Your task to perform on an android device: Open Google Maps and go to "Timeline" Image 0: 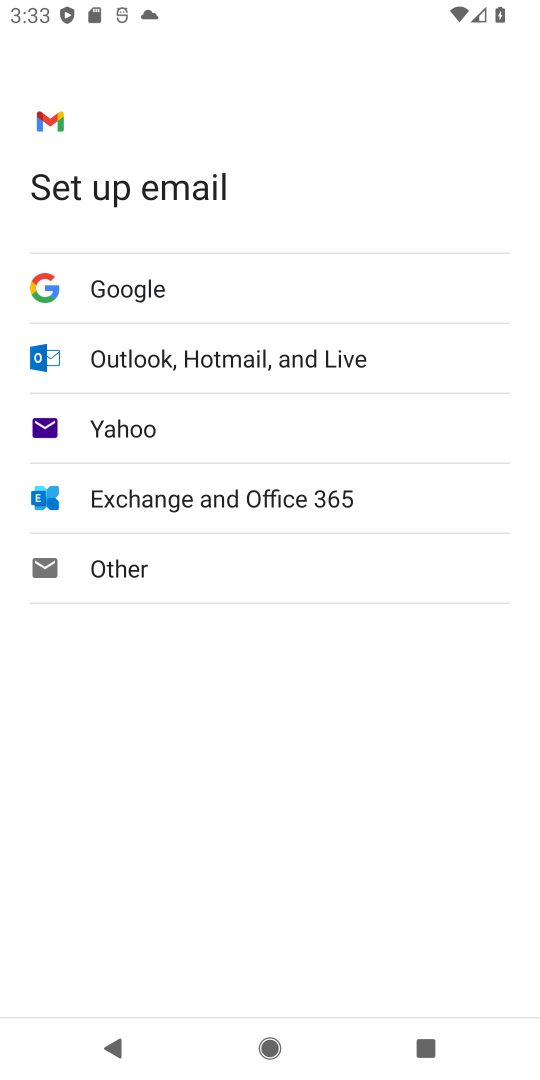
Step 0: press home button
Your task to perform on an android device: Open Google Maps and go to "Timeline" Image 1: 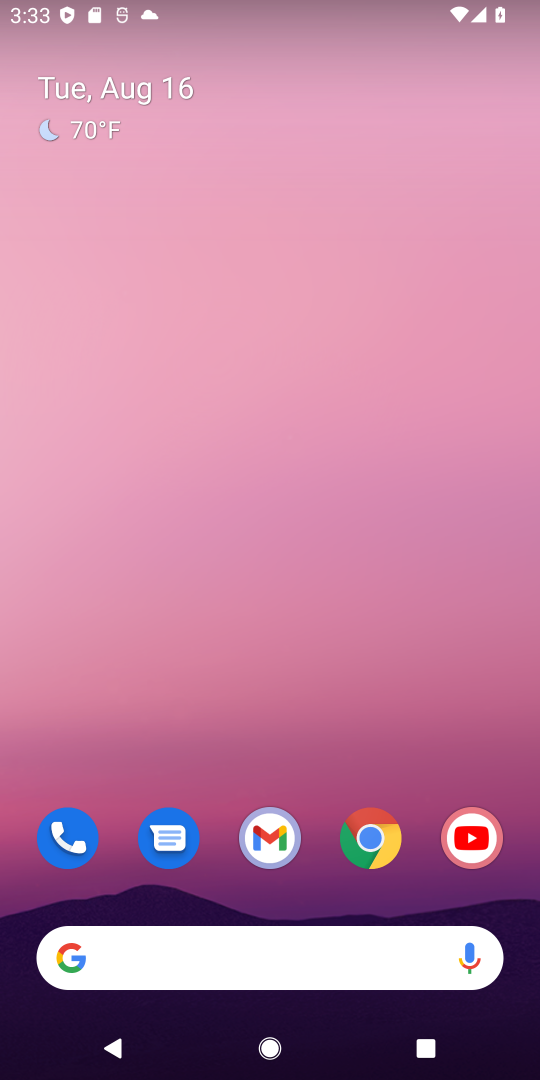
Step 1: drag from (251, 949) to (131, 7)
Your task to perform on an android device: Open Google Maps and go to "Timeline" Image 2: 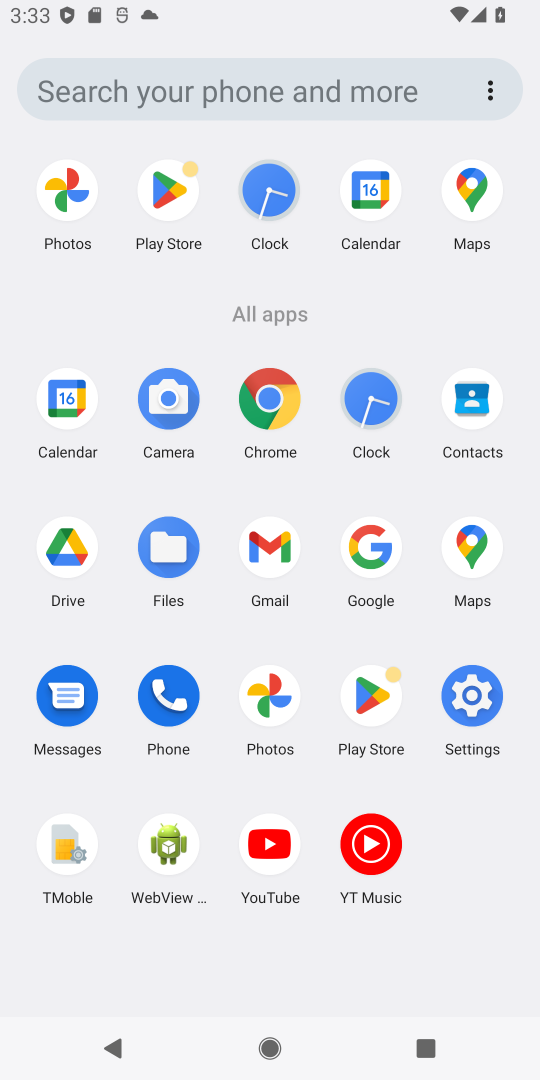
Step 2: click (469, 548)
Your task to perform on an android device: Open Google Maps and go to "Timeline" Image 3: 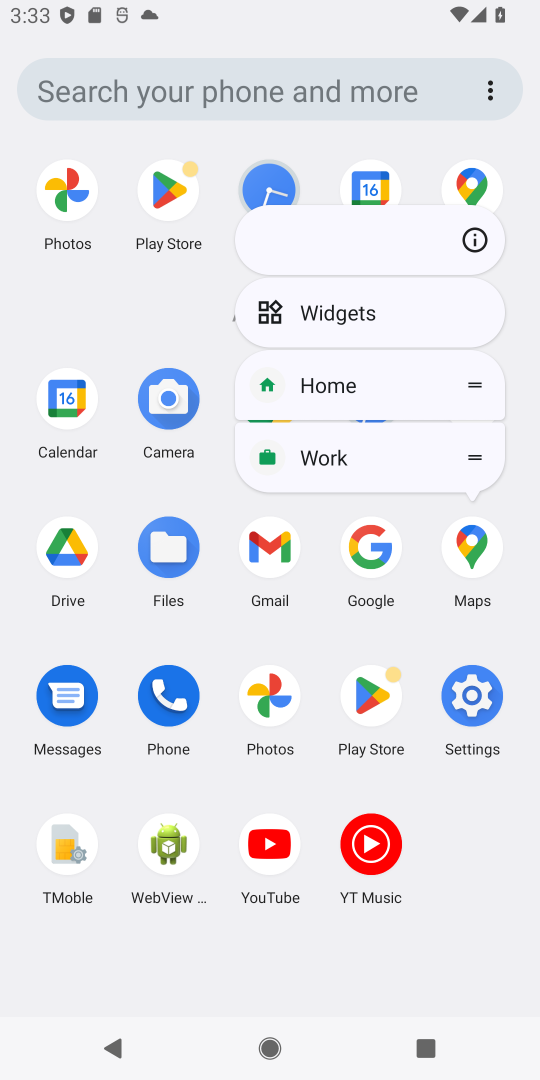
Step 3: click (469, 548)
Your task to perform on an android device: Open Google Maps and go to "Timeline" Image 4: 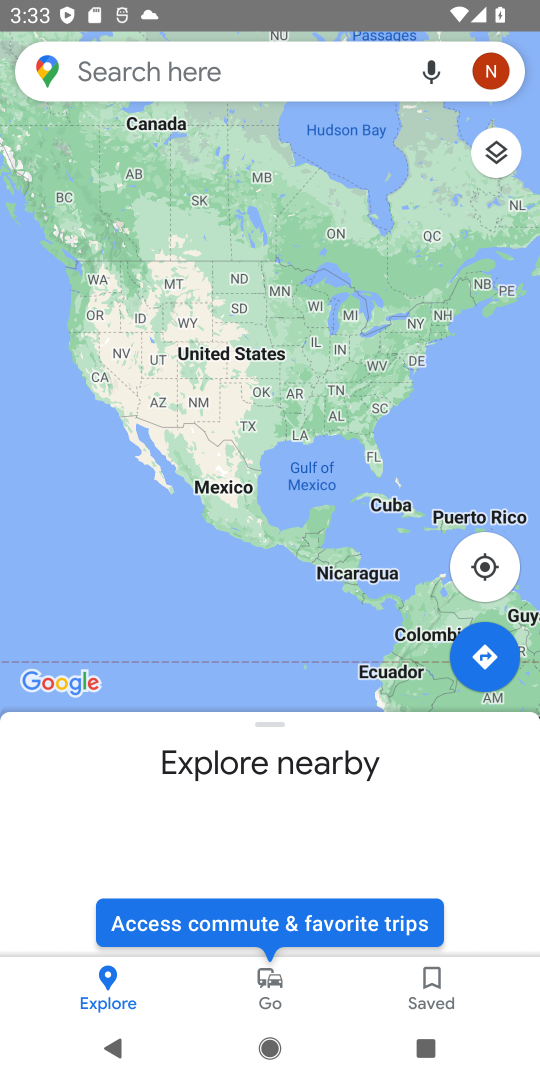
Step 4: click (485, 85)
Your task to perform on an android device: Open Google Maps and go to "Timeline" Image 5: 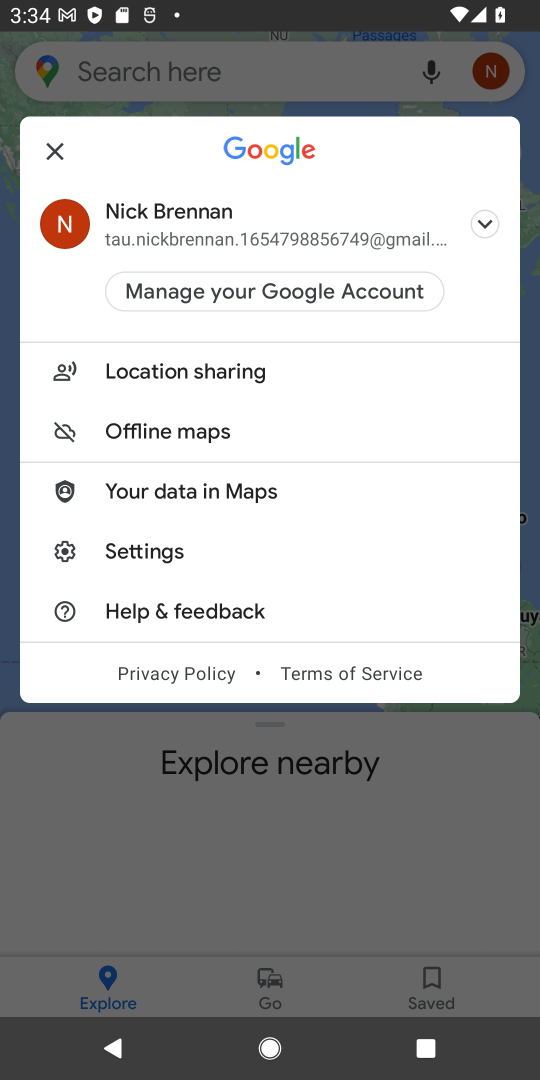
Step 5: click (154, 547)
Your task to perform on an android device: Open Google Maps and go to "Timeline" Image 6: 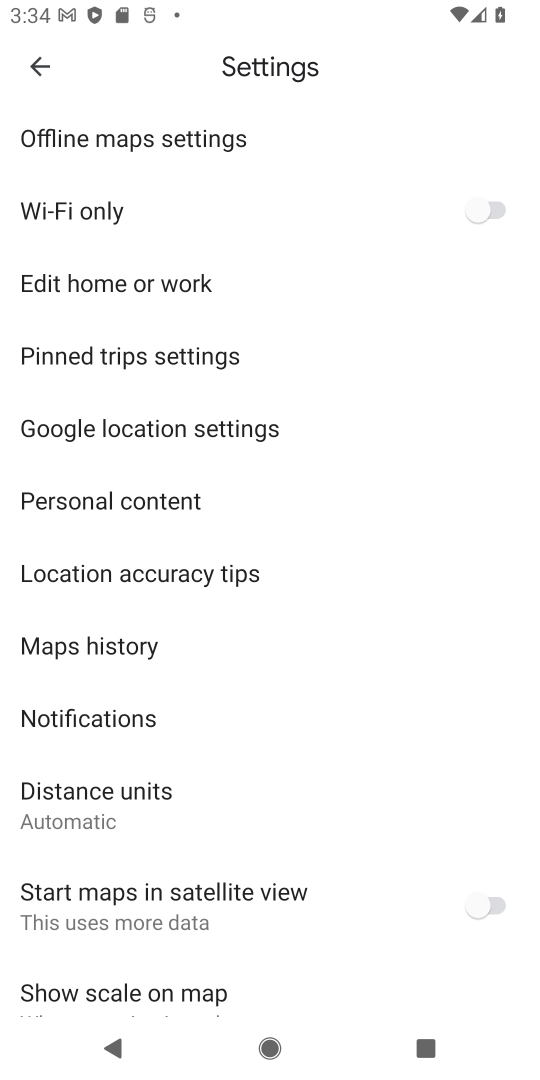
Step 6: task complete